Your task to perform on an android device: turn on the 24-hour format for clock Image 0: 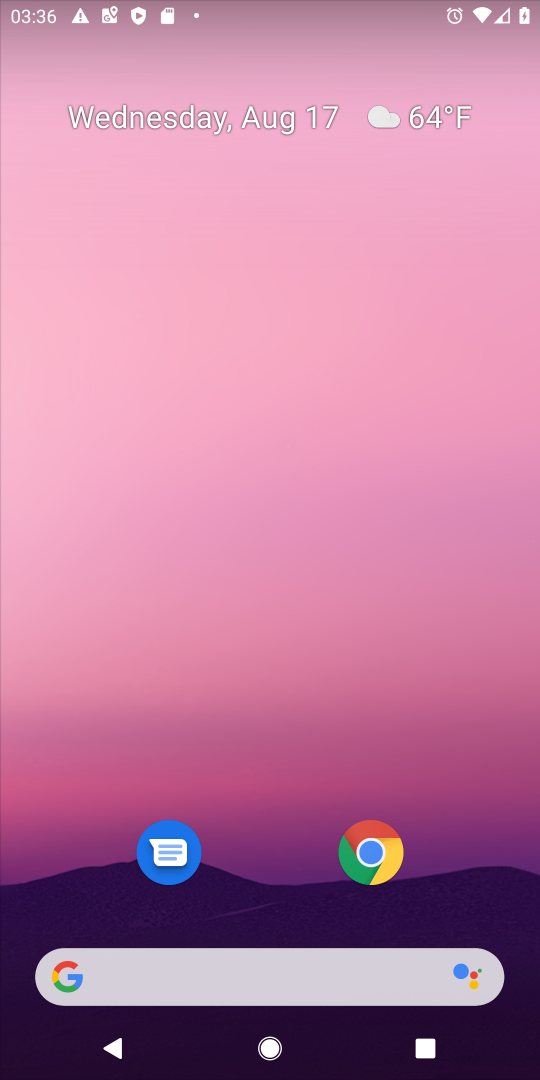
Step 0: drag from (226, 860) to (284, 75)
Your task to perform on an android device: turn on the 24-hour format for clock Image 1: 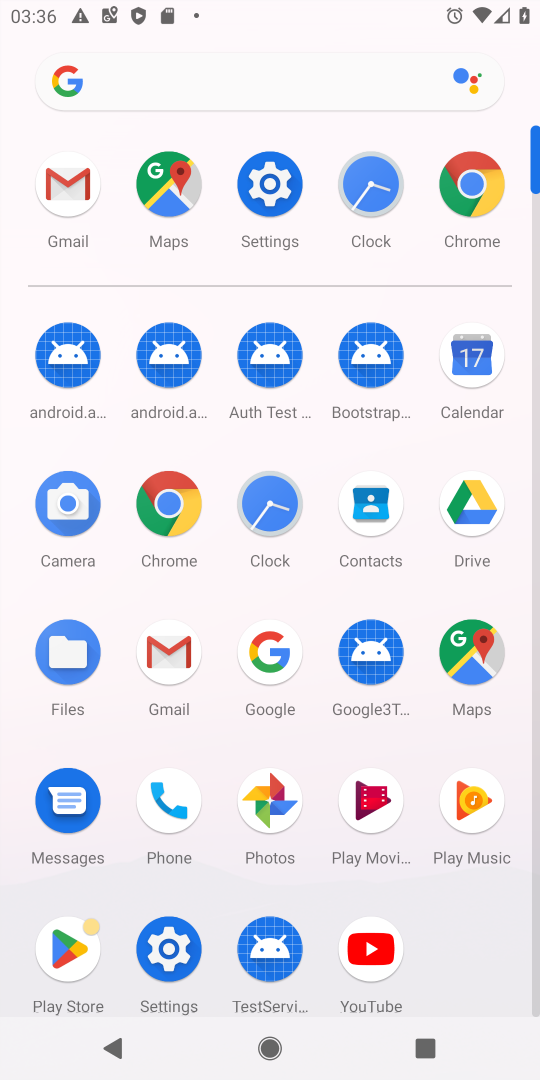
Step 1: click (264, 506)
Your task to perform on an android device: turn on the 24-hour format for clock Image 2: 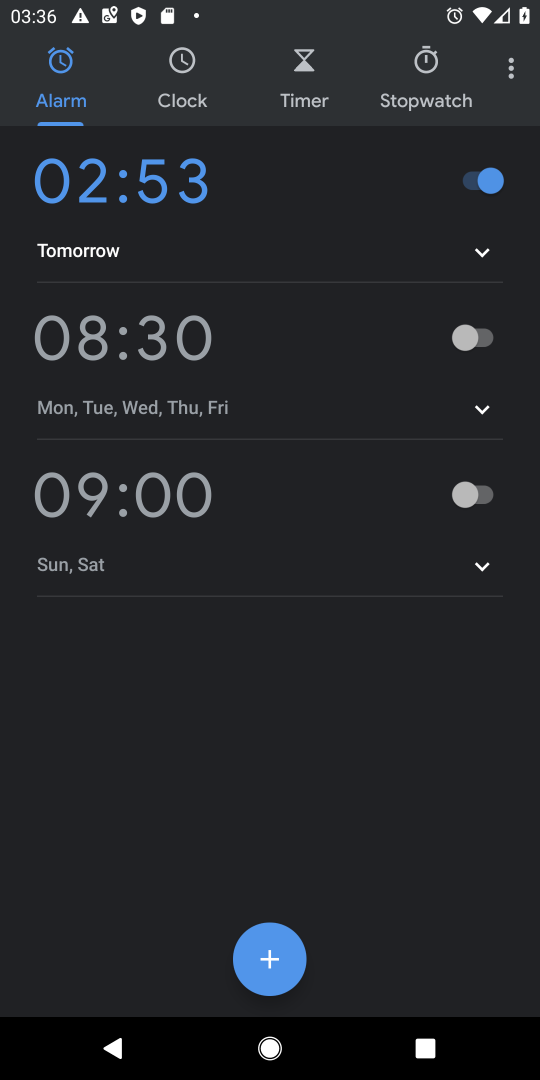
Step 2: click (512, 58)
Your task to perform on an android device: turn on the 24-hour format for clock Image 3: 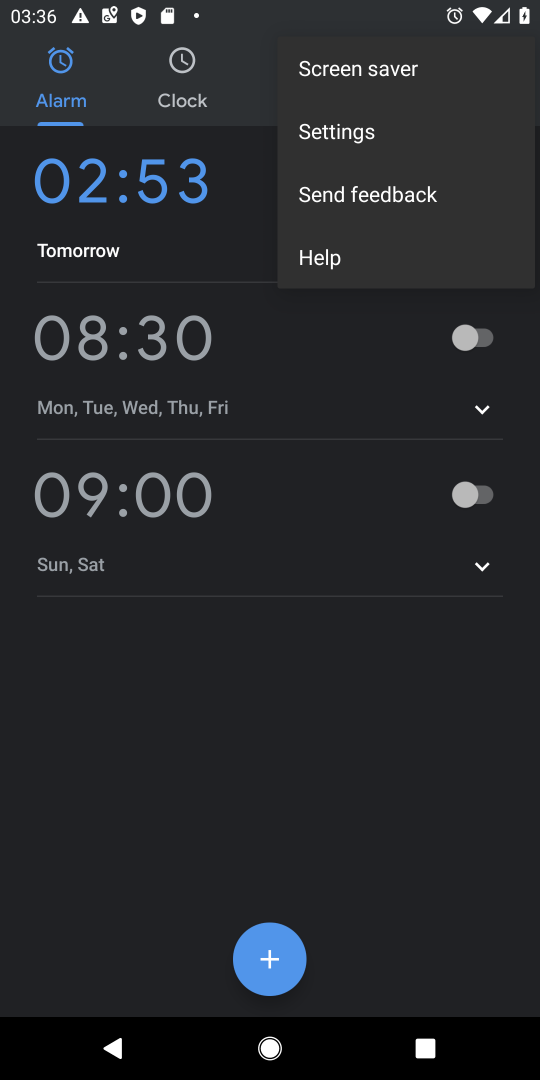
Step 3: click (387, 150)
Your task to perform on an android device: turn on the 24-hour format for clock Image 4: 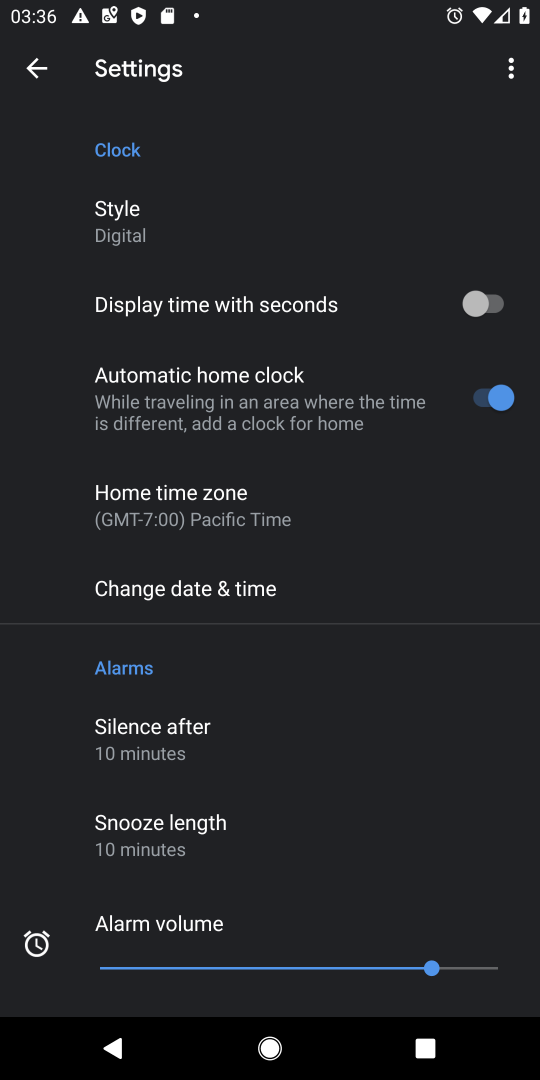
Step 4: drag from (295, 793) to (339, 147)
Your task to perform on an android device: turn on the 24-hour format for clock Image 5: 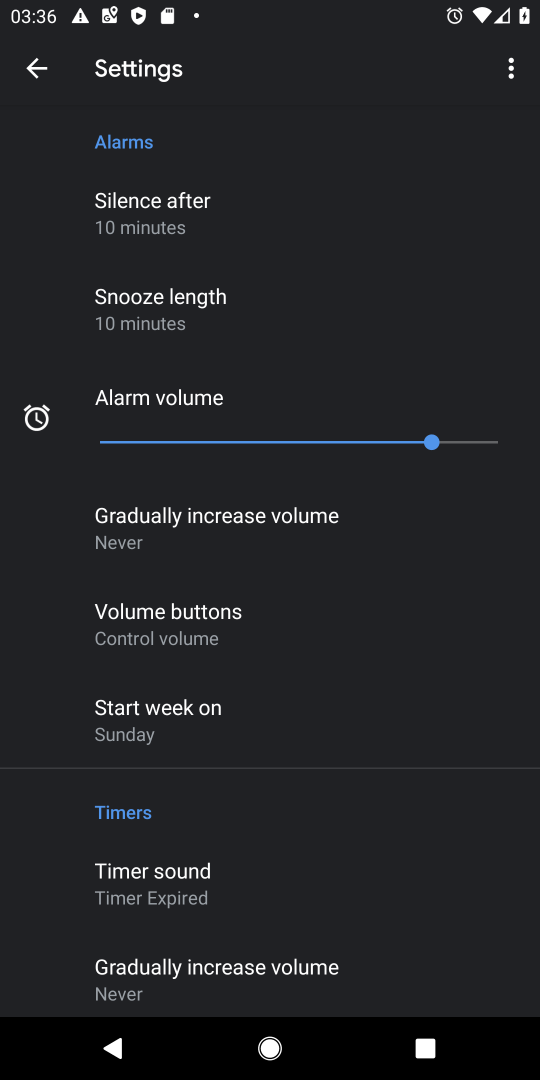
Step 5: drag from (237, 808) to (241, 930)
Your task to perform on an android device: turn on the 24-hour format for clock Image 6: 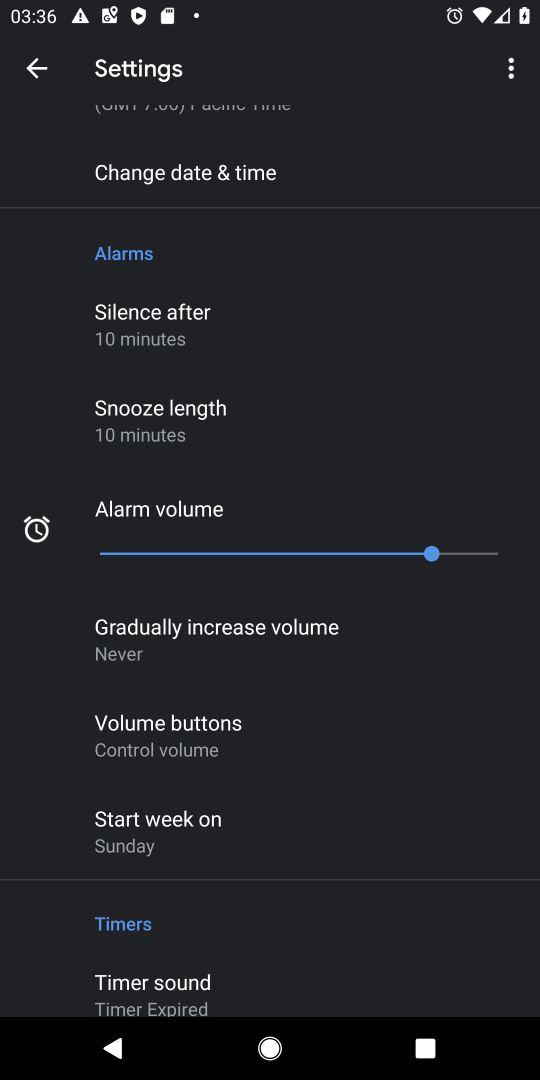
Step 6: click (218, 185)
Your task to perform on an android device: turn on the 24-hour format for clock Image 7: 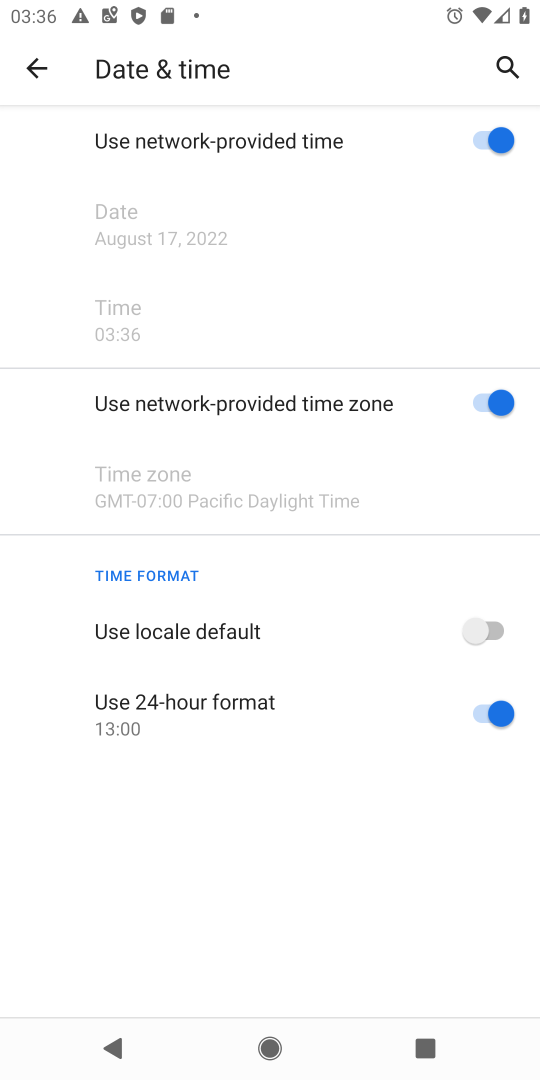
Step 7: task complete